Your task to perform on an android device: Set the phone to "Do not disturb". Image 0: 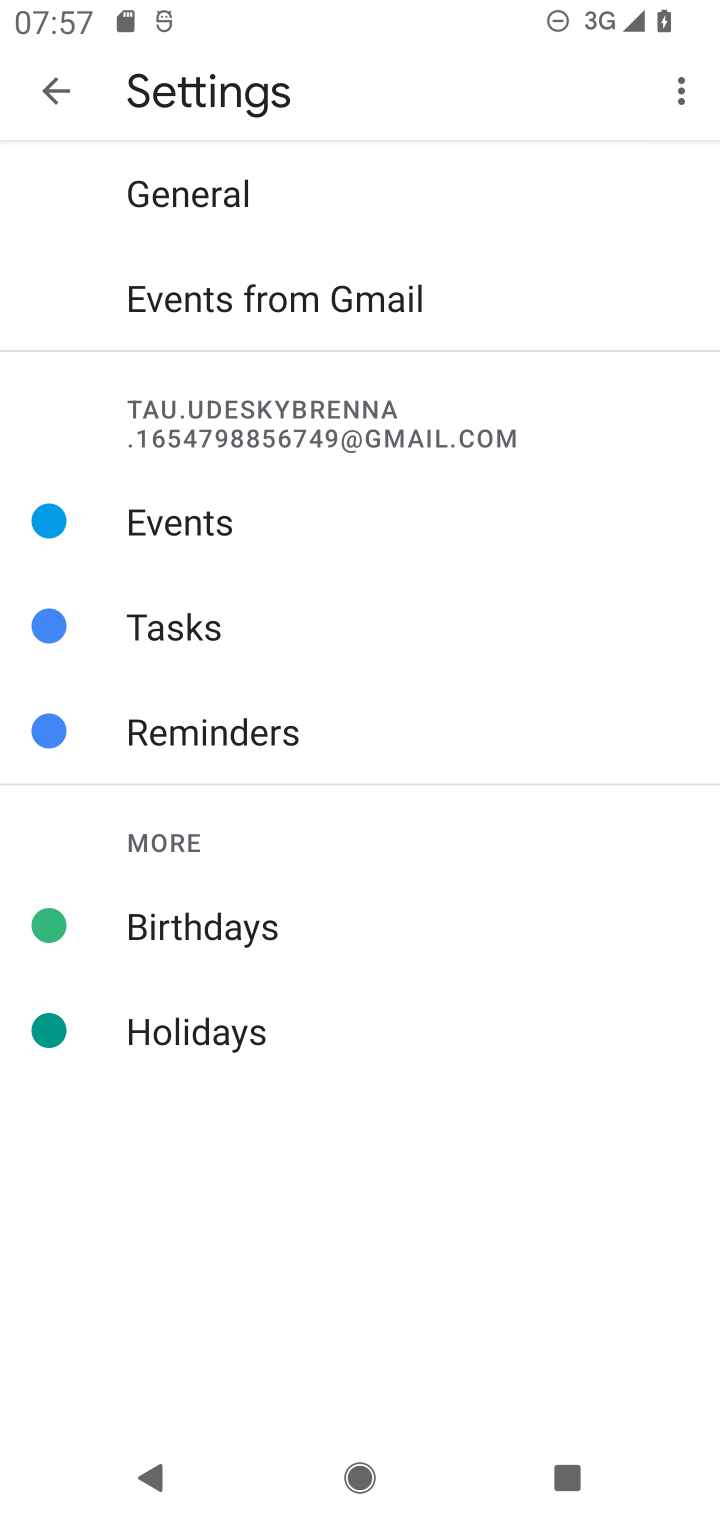
Step 0: press home button
Your task to perform on an android device: Set the phone to "Do not disturb". Image 1: 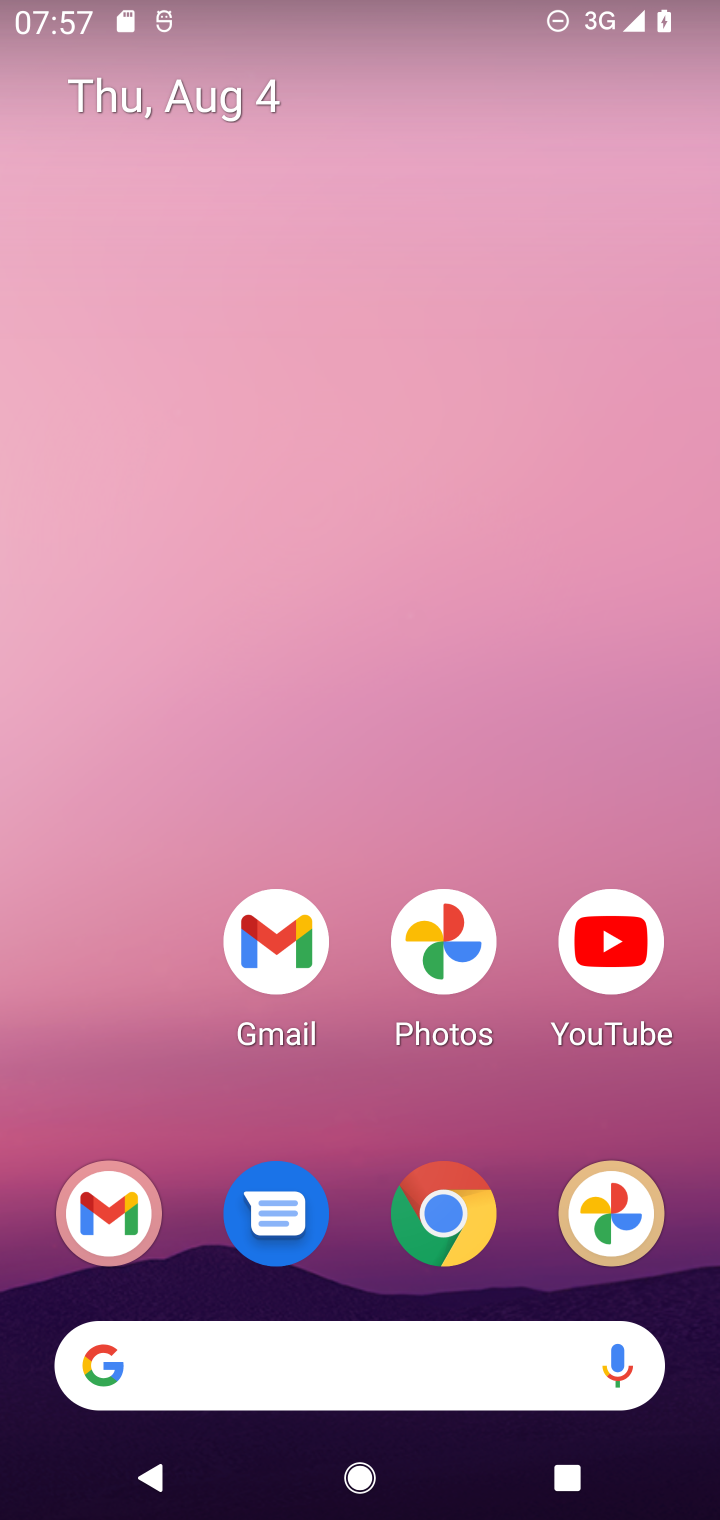
Step 1: drag from (165, 1092) to (146, 554)
Your task to perform on an android device: Set the phone to "Do not disturb". Image 2: 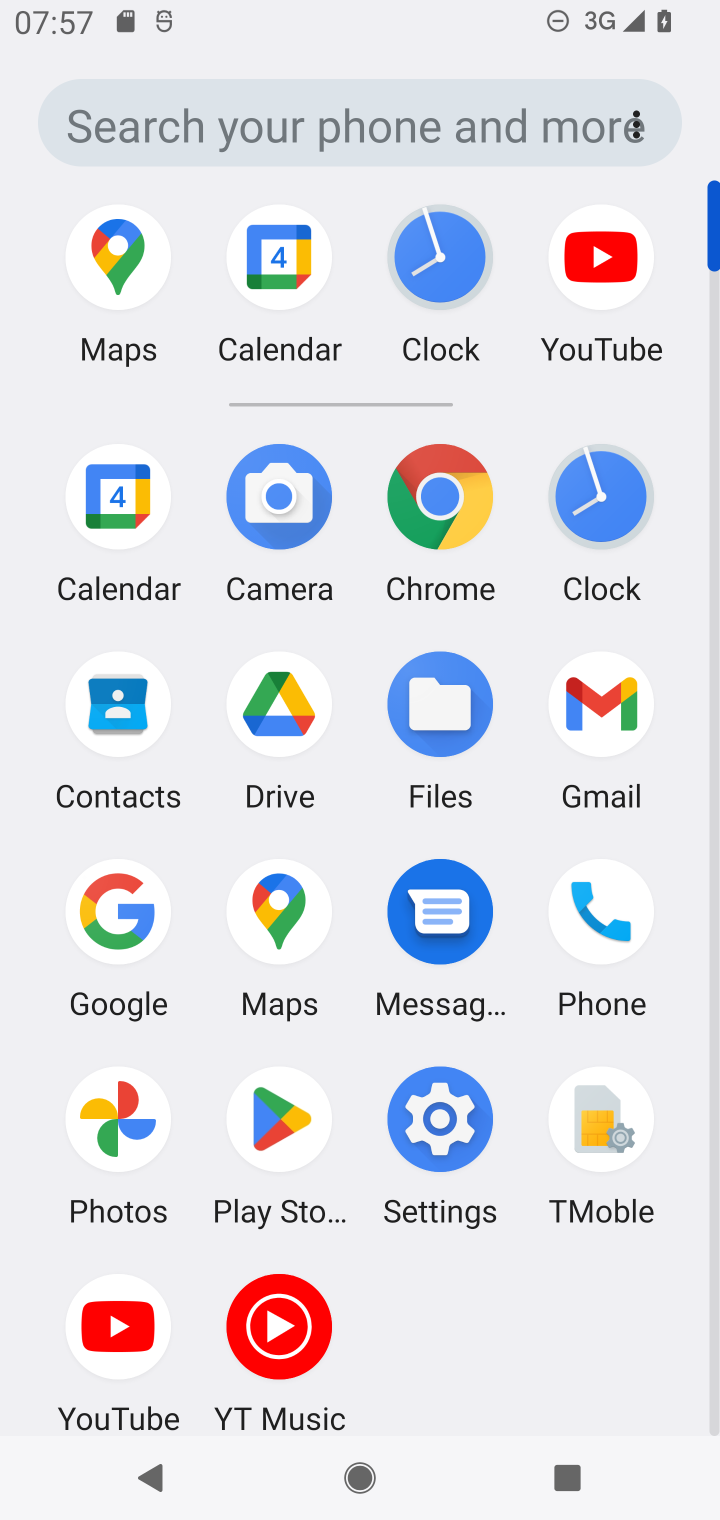
Step 2: click (446, 1121)
Your task to perform on an android device: Set the phone to "Do not disturb". Image 3: 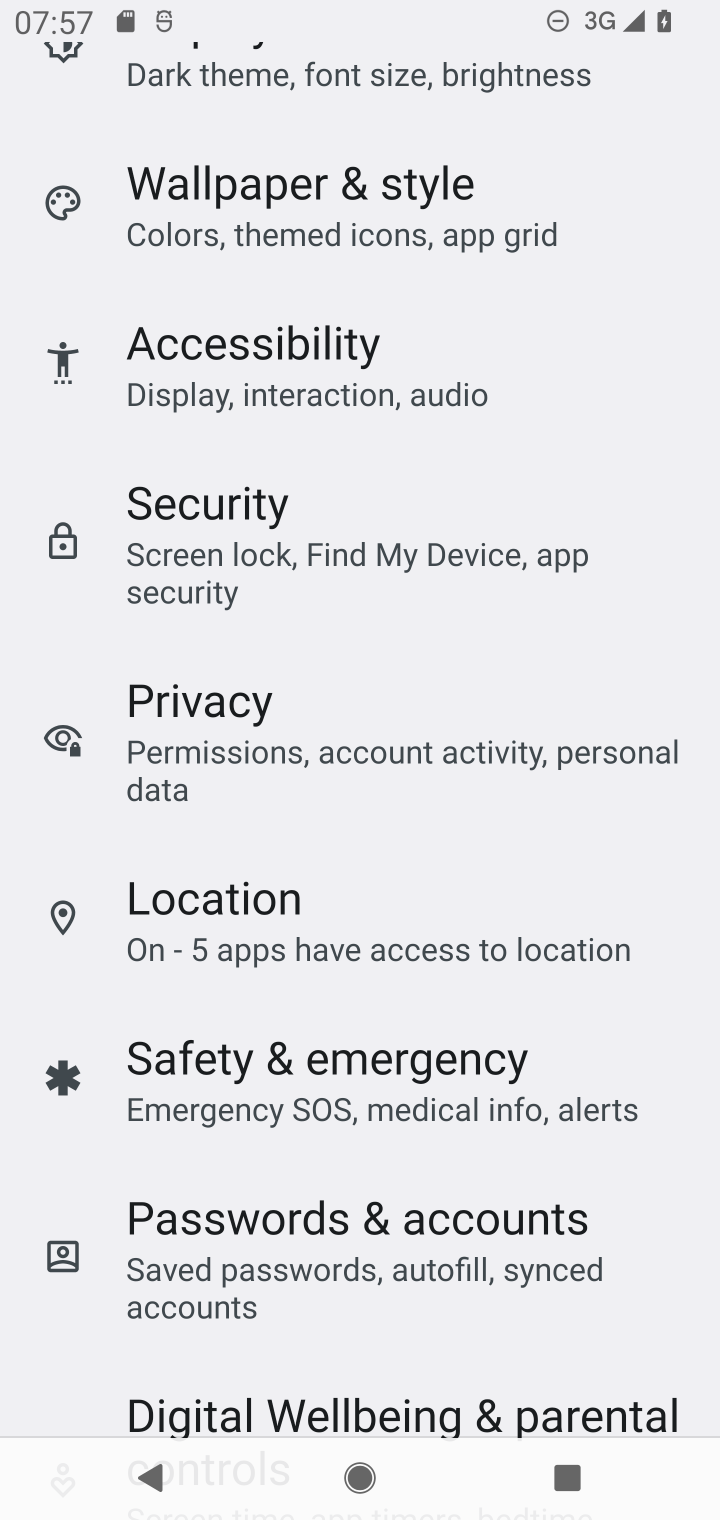
Step 3: drag from (652, 494) to (647, 809)
Your task to perform on an android device: Set the phone to "Do not disturb". Image 4: 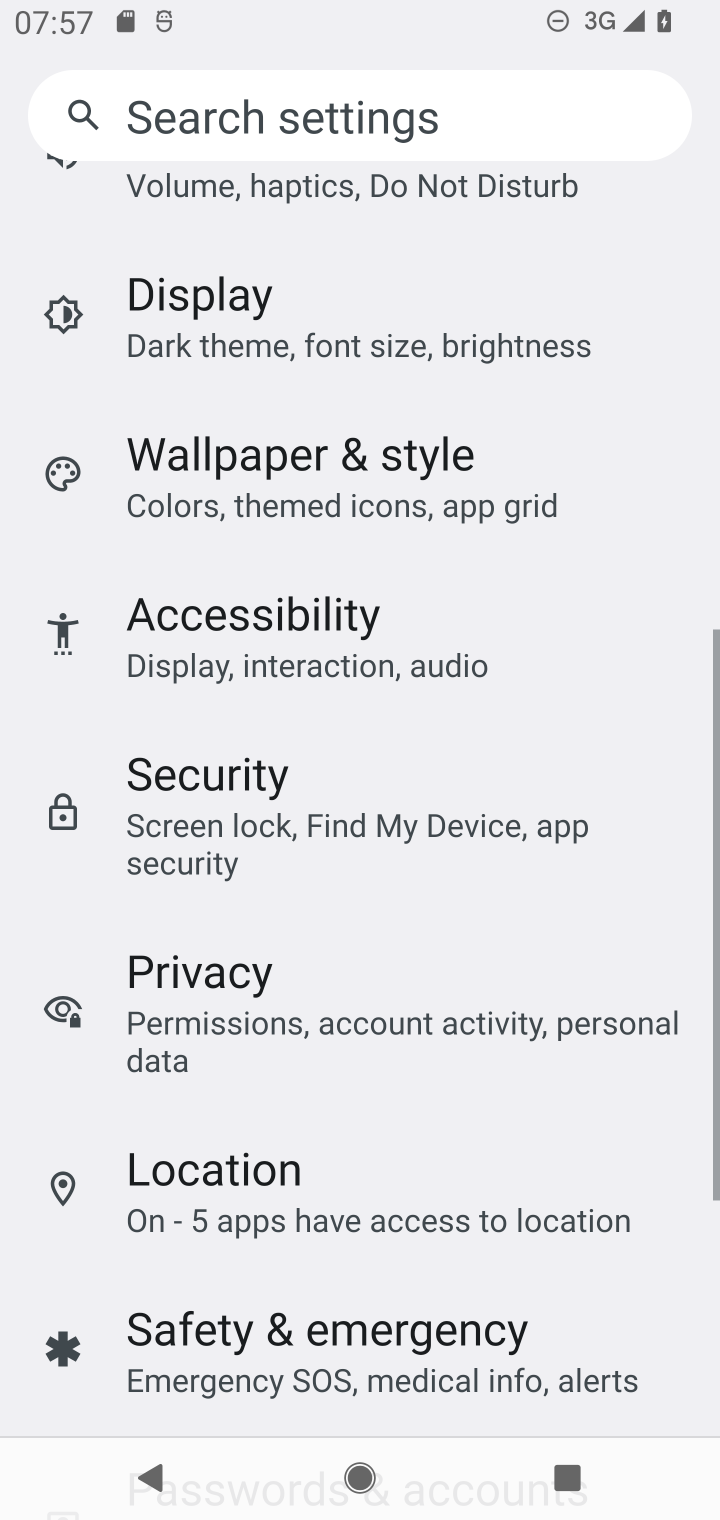
Step 4: drag from (614, 484) to (623, 728)
Your task to perform on an android device: Set the phone to "Do not disturb". Image 5: 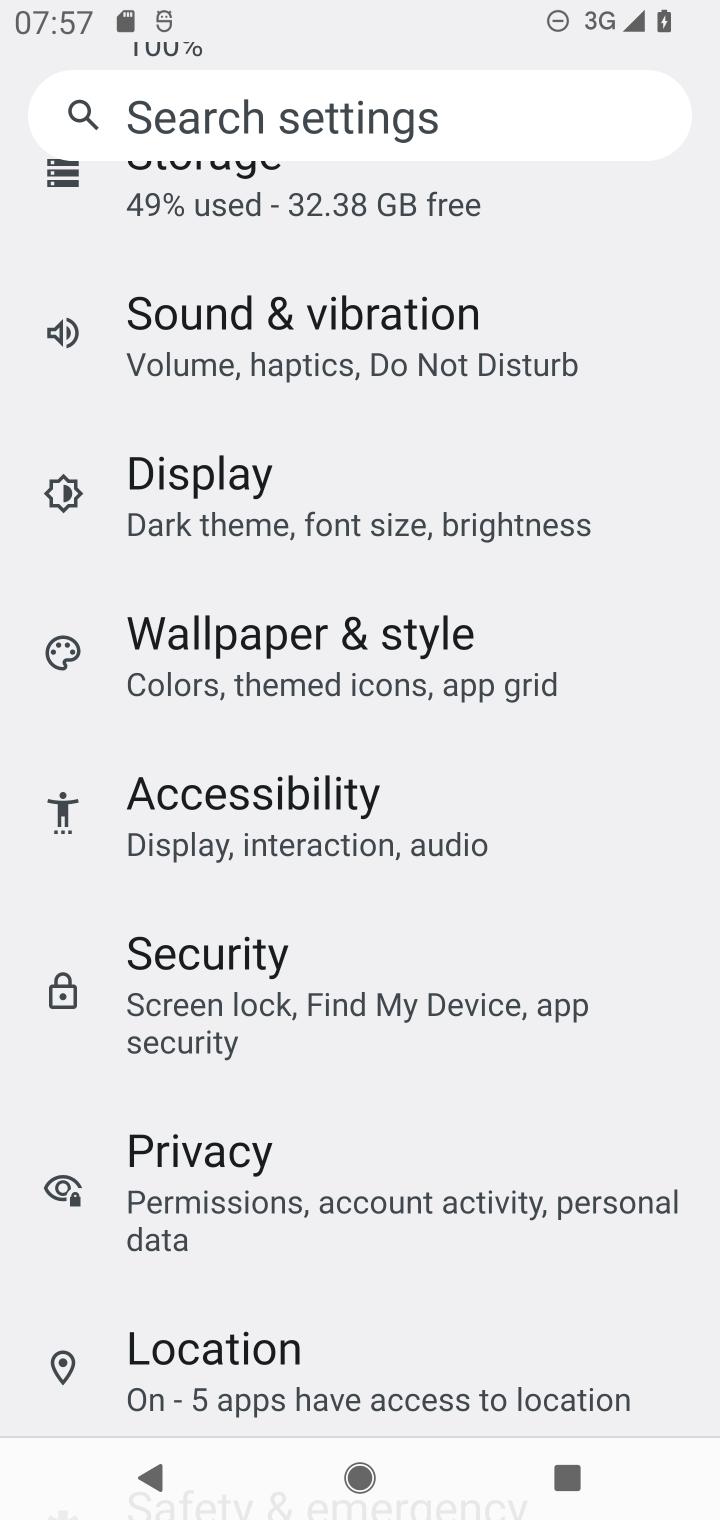
Step 5: drag from (639, 410) to (627, 719)
Your task to perform on an android device: Set the phone to "Do not disturb". Image 6: 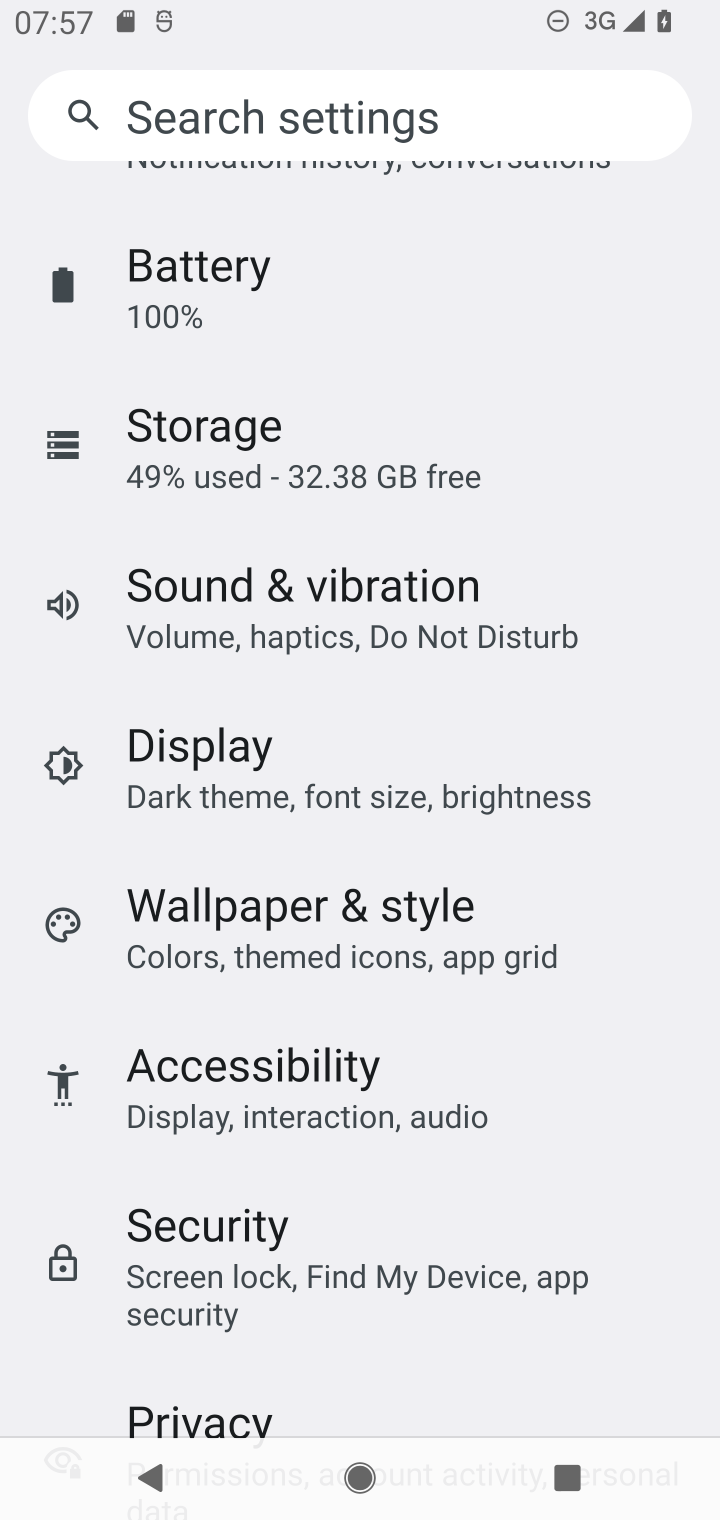
Step 6: drag from (614, 416) to (620, 672)
Your task to perform on an android device: Set the phone to "Do not disturb". Image 7: 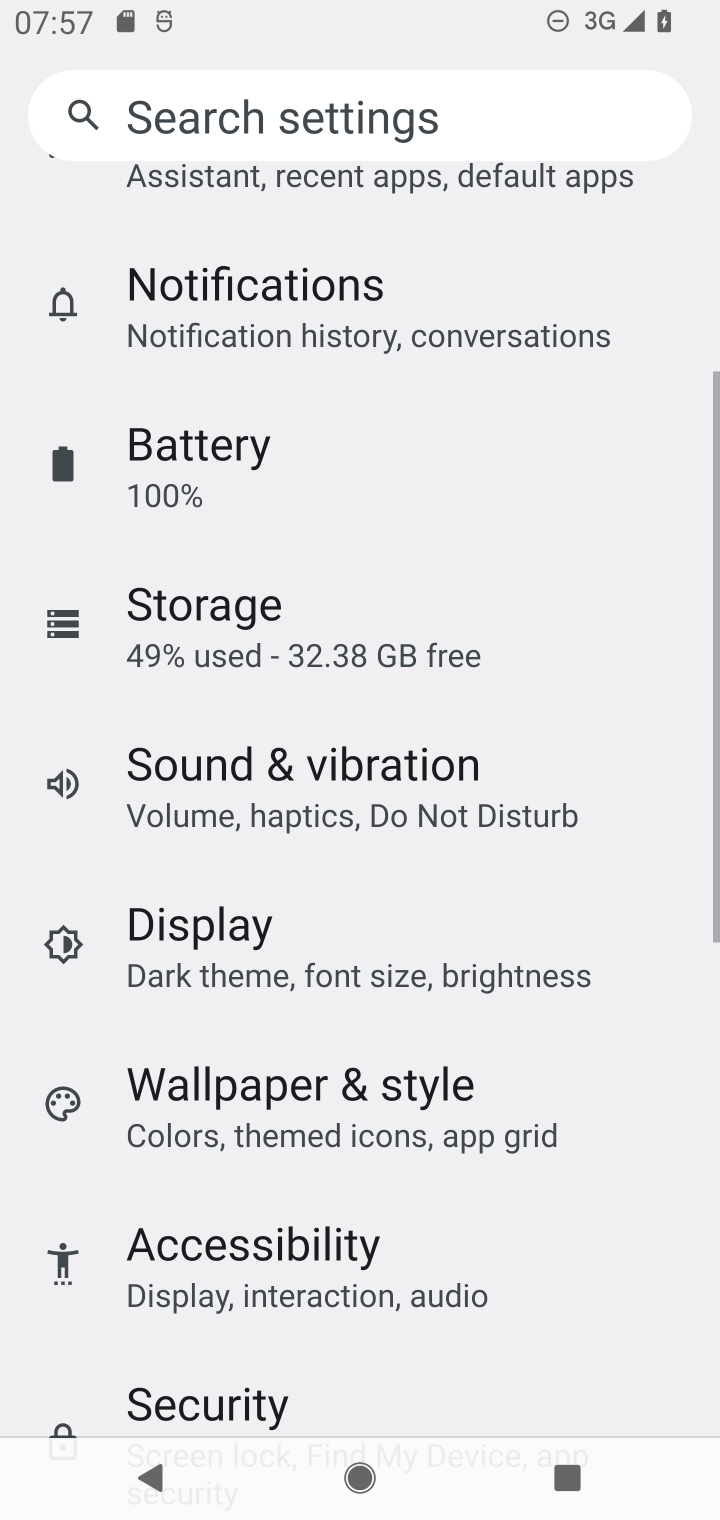
Step 7: drag from (616, 388) to (629, 676)
Your task to perform on an android device: Set the phone to "Do not disturb". Image 8: 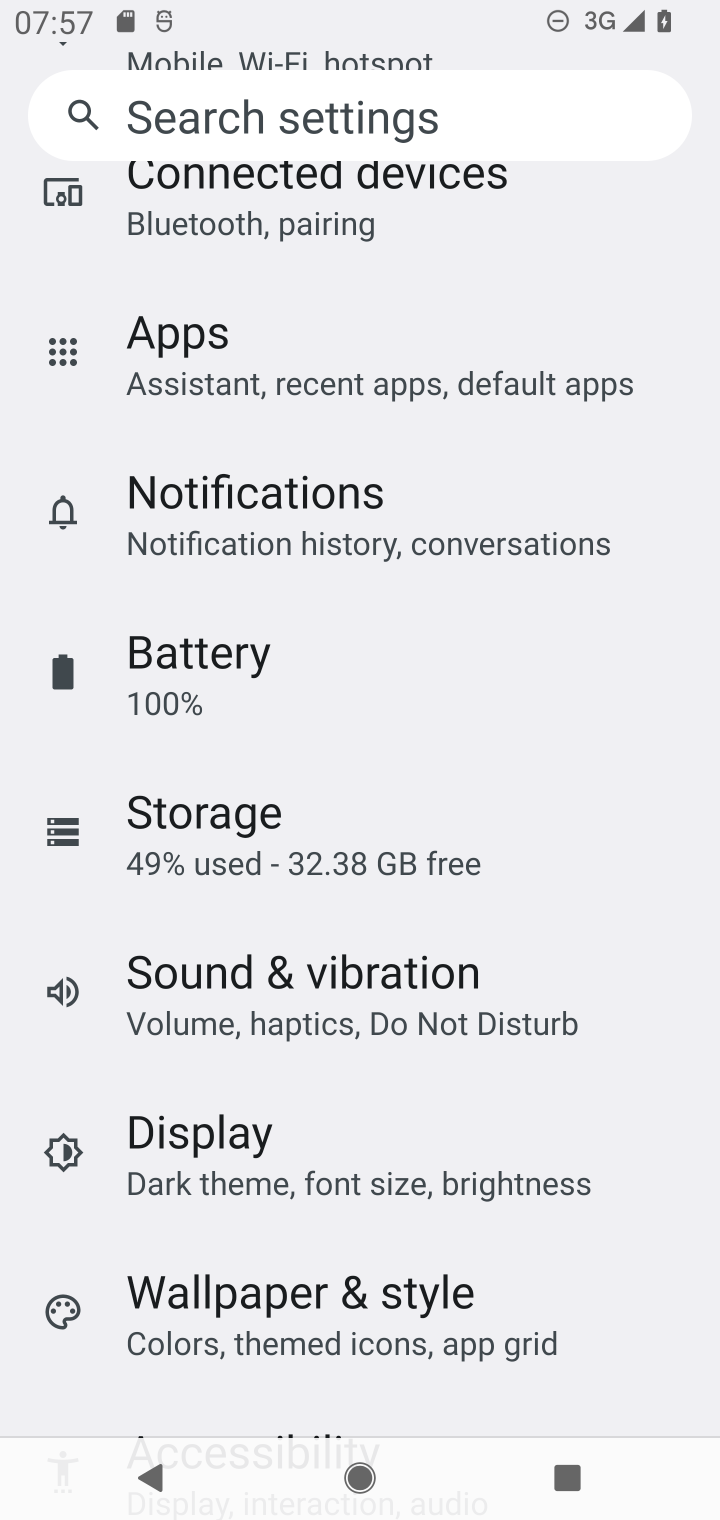
Step 8: drag from (626, 415) to (634, 687)
Your task to perform on an android device: Set the phone to "Do not disturb". Image 9: 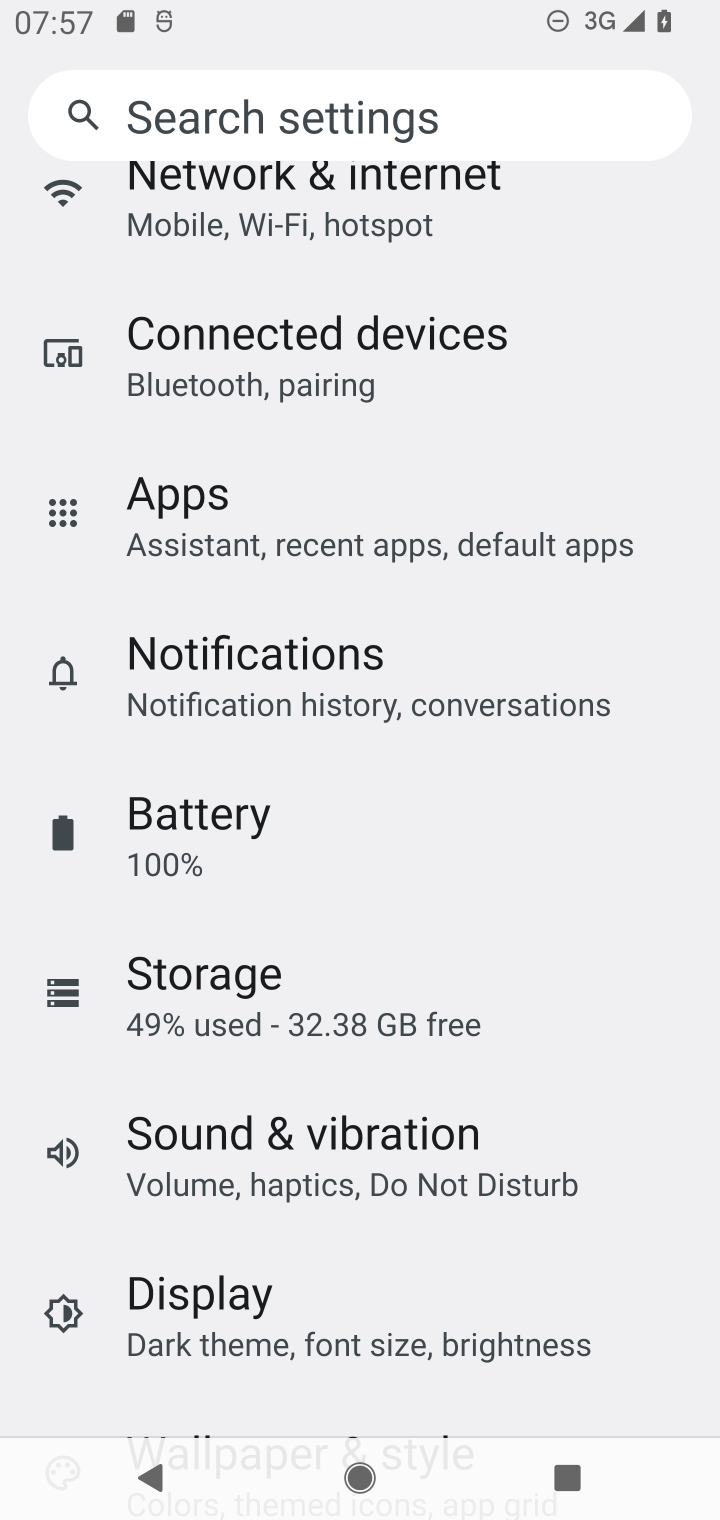
Step 9: drag from (604, 396) to (624, 629)
Your task to perform on an android device: Set the phone to "Do not disturb". Image 10: 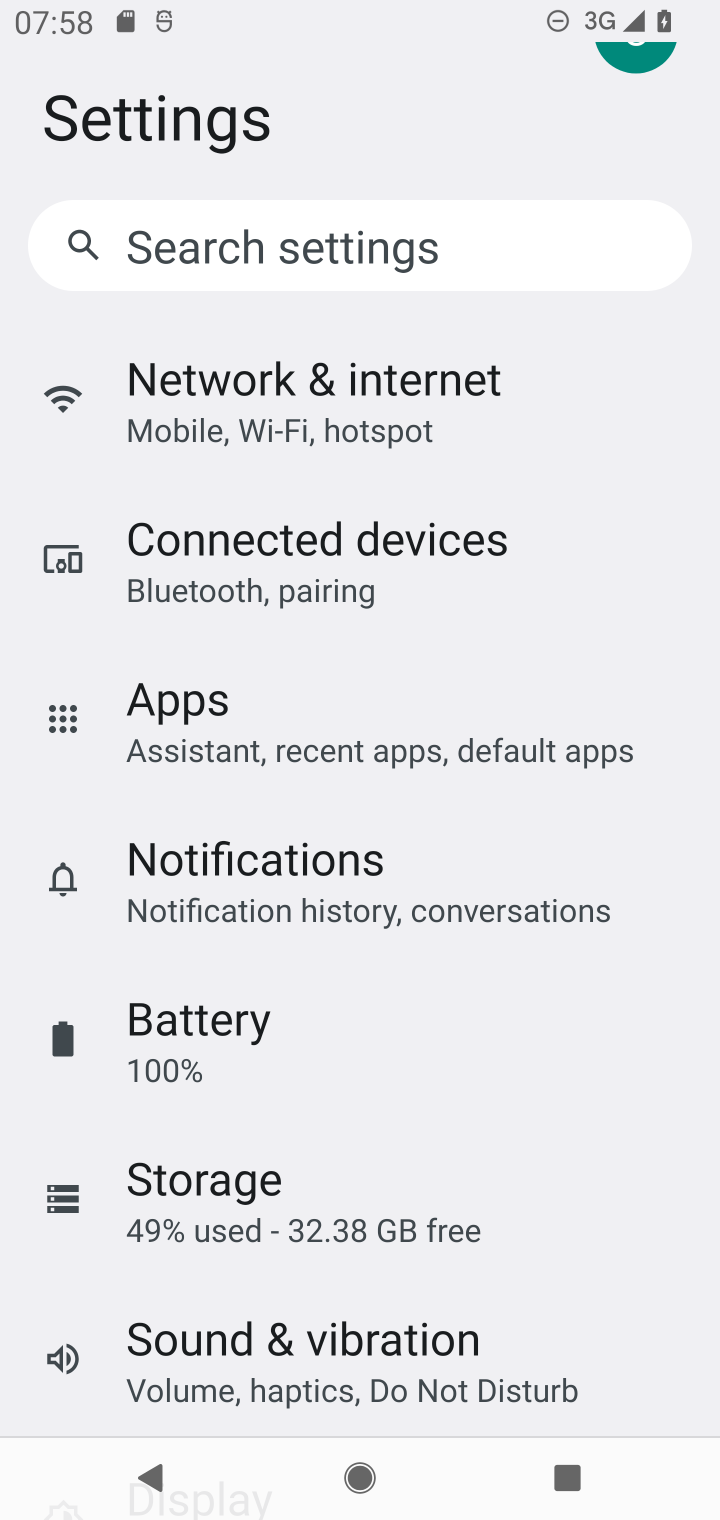
Step 10: click (405, 1372)
Your task to perform on an android device: Set the phone to "Do not disturb". Image 11: 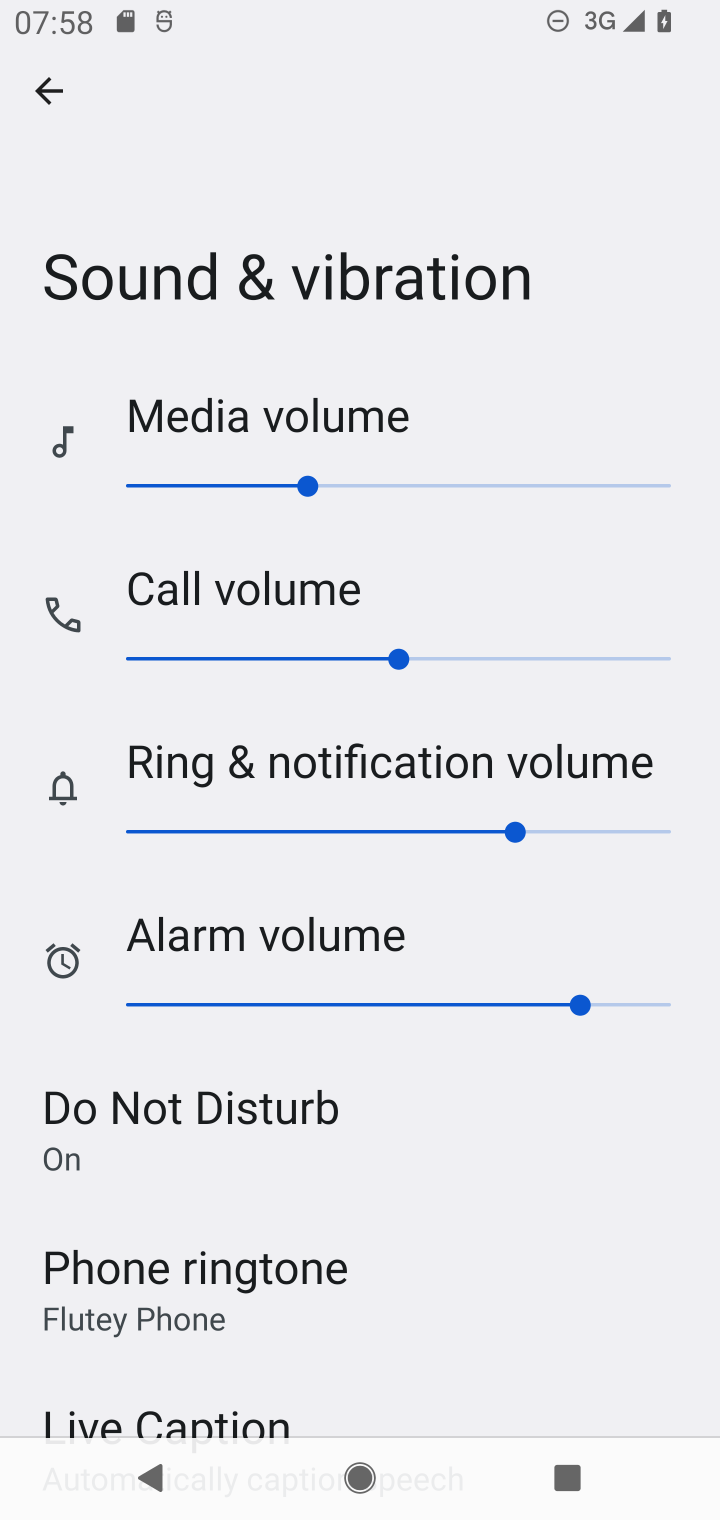
Step 11: task complete